Your task to perform on an android device: Do I have any events today? Image 0: 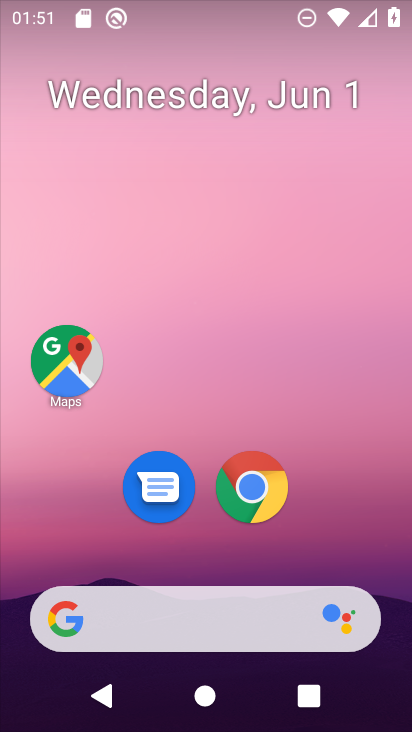
Step 0: drag from (315, 524) to (329, 168)
Your task to perform on an android device: Do I have any events today? Image 1: 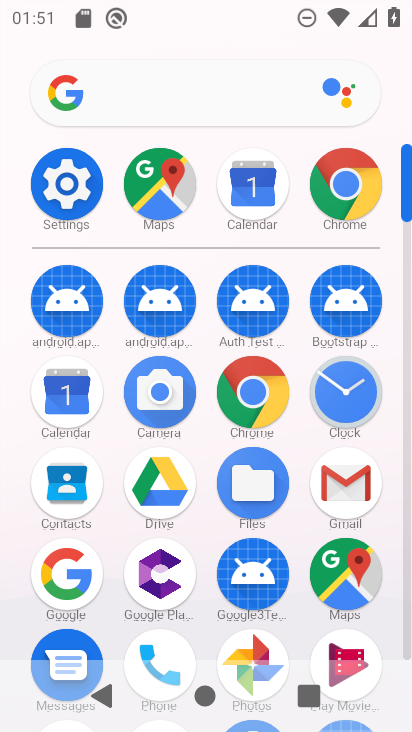
Step 1: click (70, 376)
Your task to perform on an android device: Do I have any events today? Image 2: 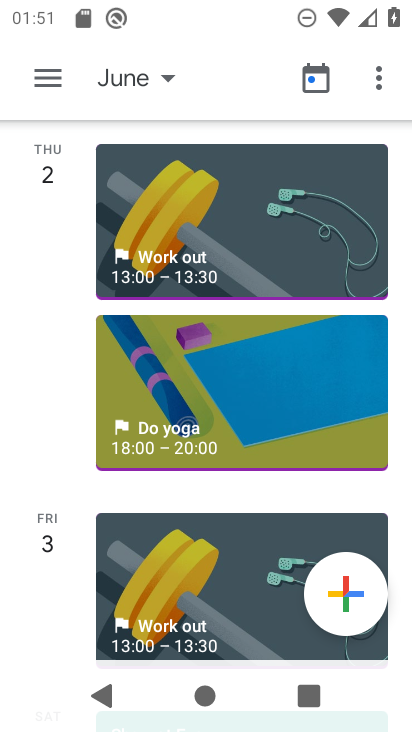
Step 2: task complete